Your task to perform on an android device: all mails in gmail Image 0: 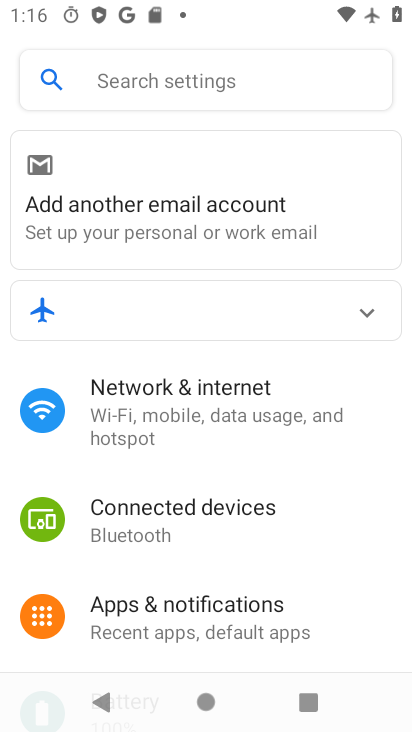
Step 0: press home button
Your task to perform on an android device: all mails in gmail Image 1: 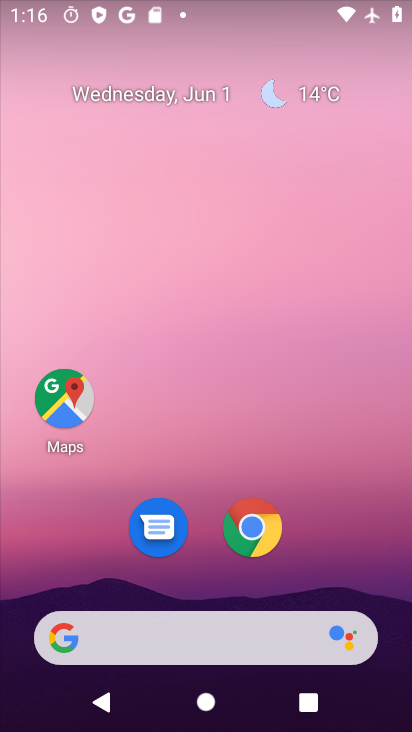
Step 1: drag from (293, 562) to (305, 156)
Your task to perform on an android device: all mails in gmail Image 2: 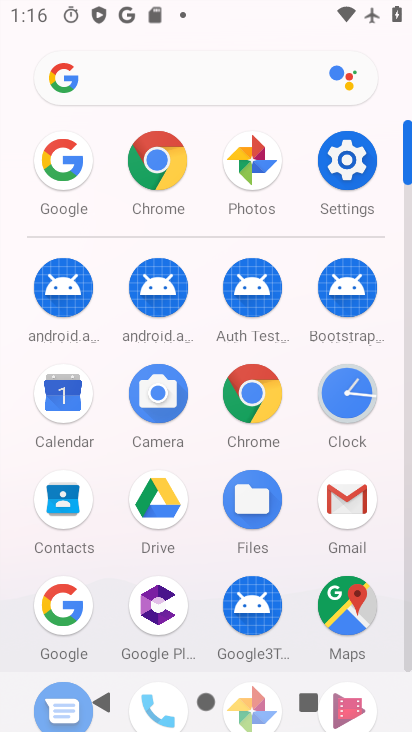
Step 2: click (352, 517)
Your task to perform on an android device: all mails in gmail Image 3: 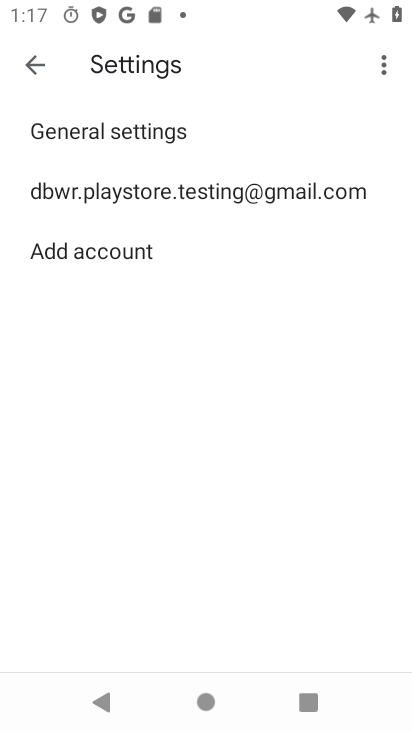
Step 3: click (33, 66)
Your task to perform on an android device: all mails in gmail Image 4: 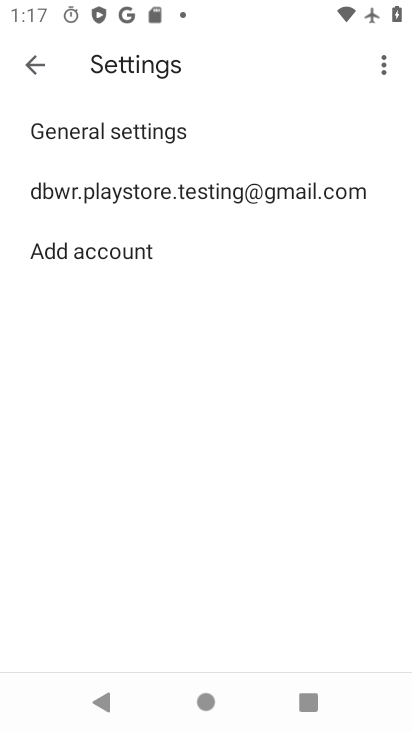
Step 4: click (31, 65)
Your task to perform on an android device: all mails in gmail Image 5: 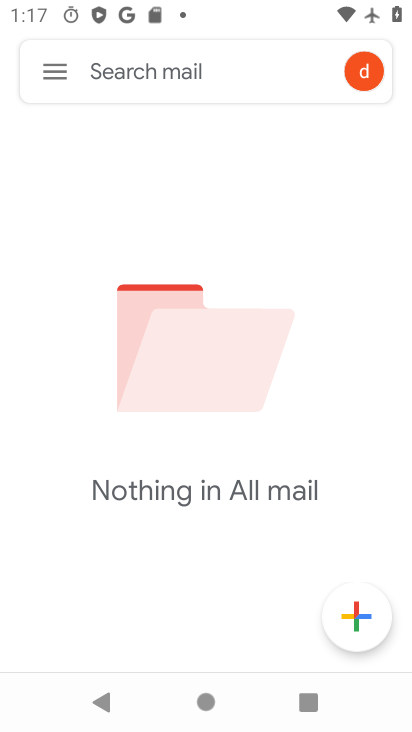
Step 5: task complete